Your task to perform on an android device: Search for the best selling coffee table on Crate & Barrel Image 0: 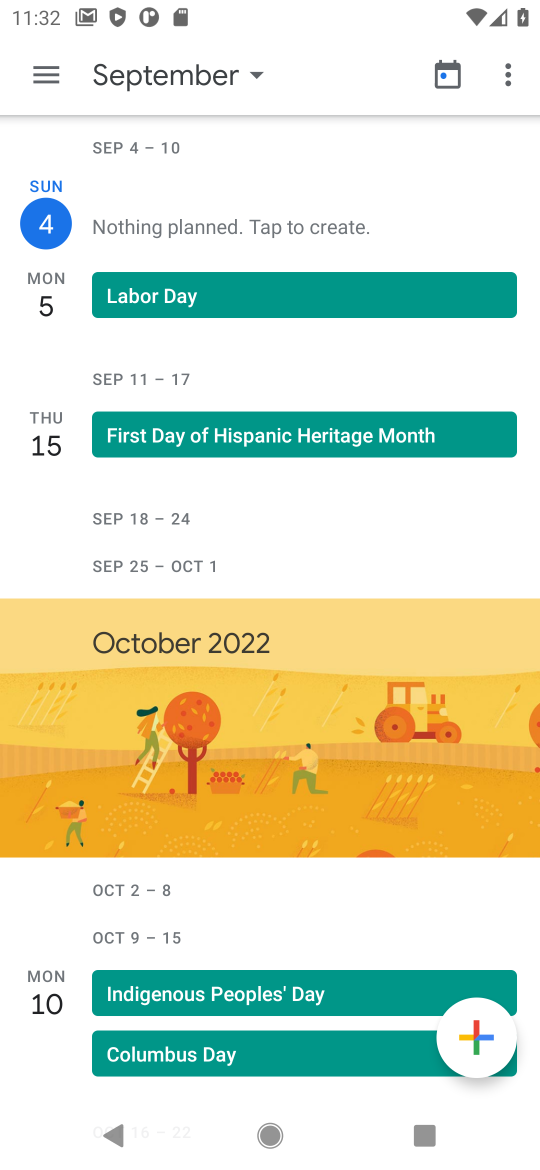
Step 0: press back button
Your task to perform on an android device: Search for the best selling coffee table on Crate & Barrel Image 1: 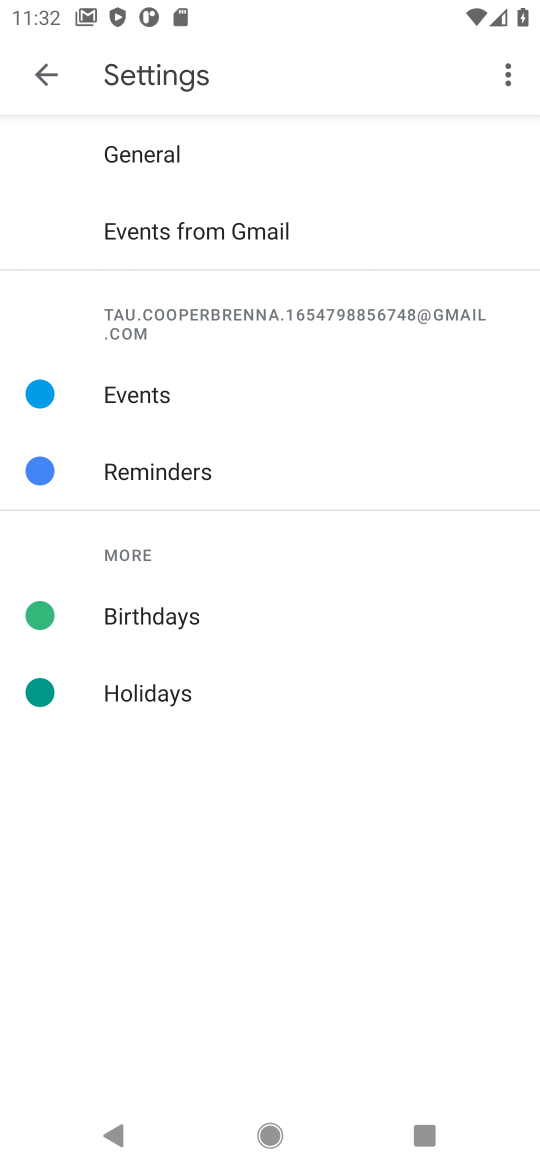
Step 1: press home button
Your task to perform on an android device: Search for the best selling coffee table on Crate & Barrel Image 2: 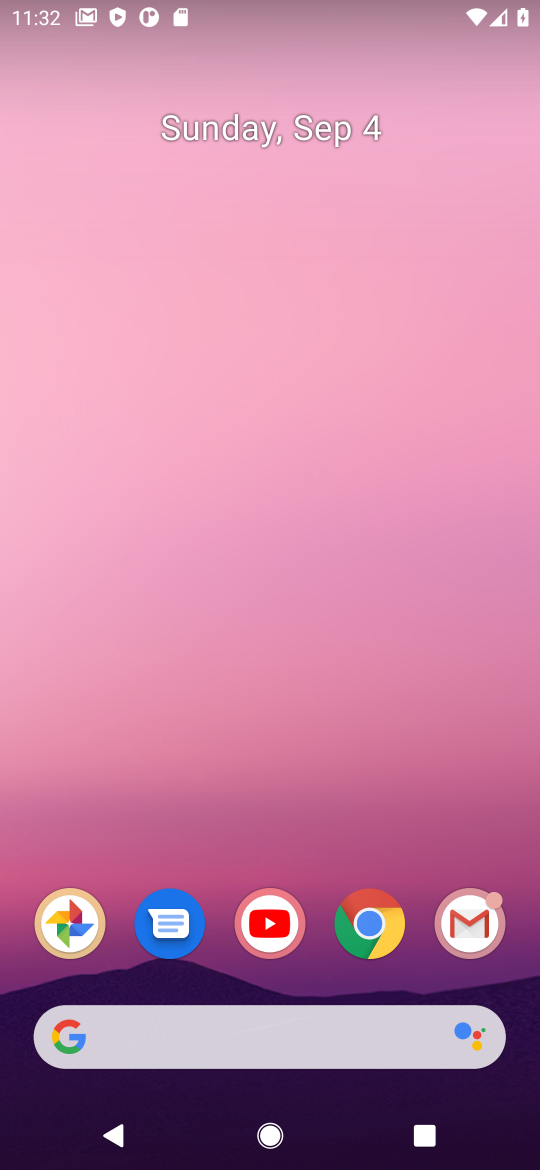
Step 2: click (387, 924)
Your task to perform on an android device: Search for the best selling coffee table on Crate & Barrel Image 3: 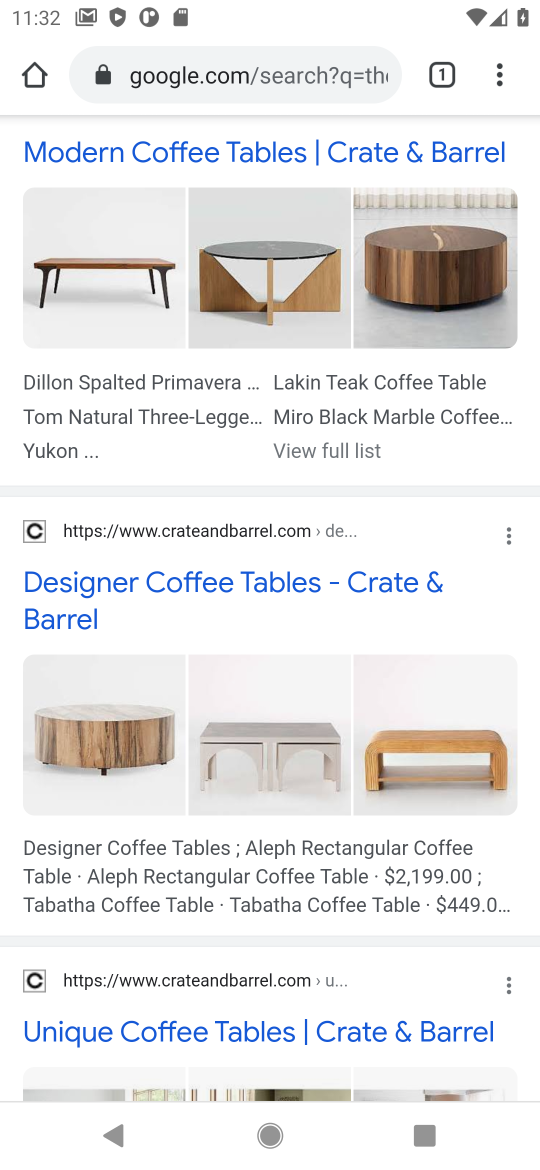
Step 3: click (223, 87)
Your task to perform on an android device: Search for the best selling coffee table on Crate & Barrel Image 4: 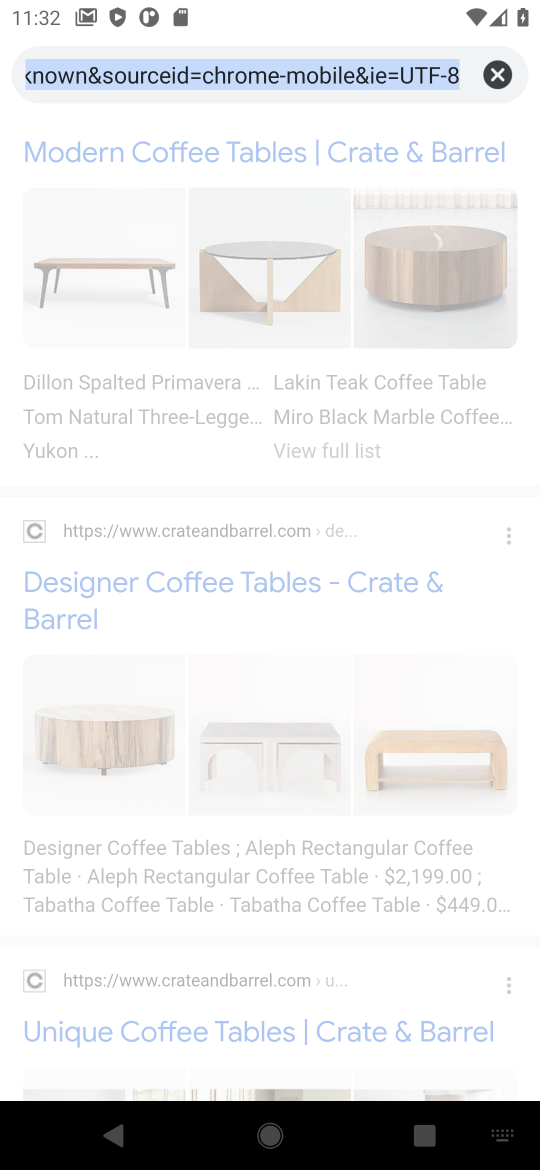
Step 4: click (491, 79)
Your task to perform on an android device: Search for the best selling coffee table on Crate & Barrel Image 5: 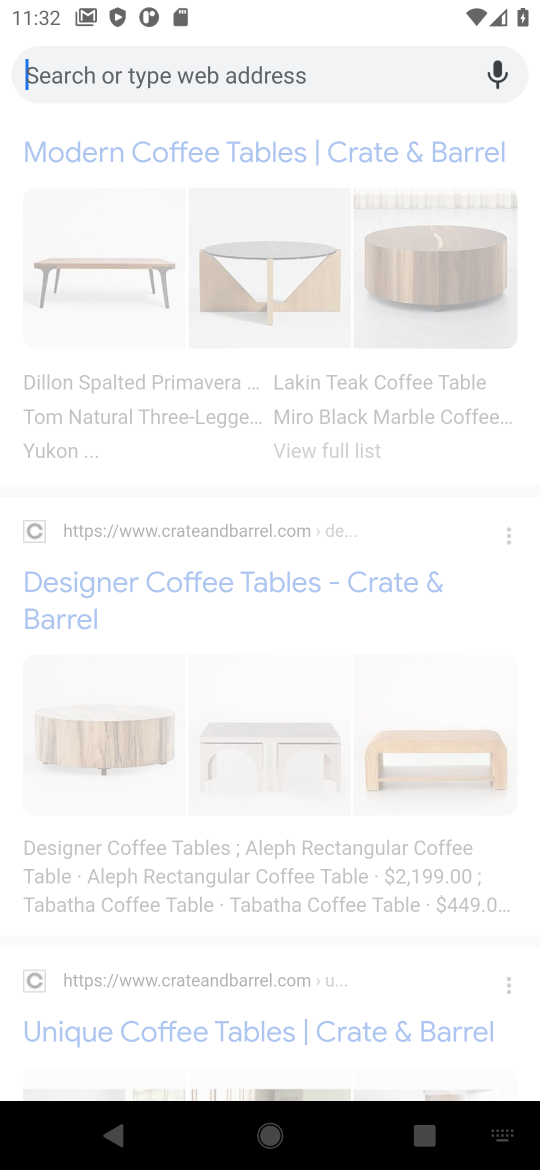
Step 5: type " best selling coffee table on Crate & Barrel"
Your task to perform on an android device: Search for the best selling coffee table on Crate & Barrel Image 6: 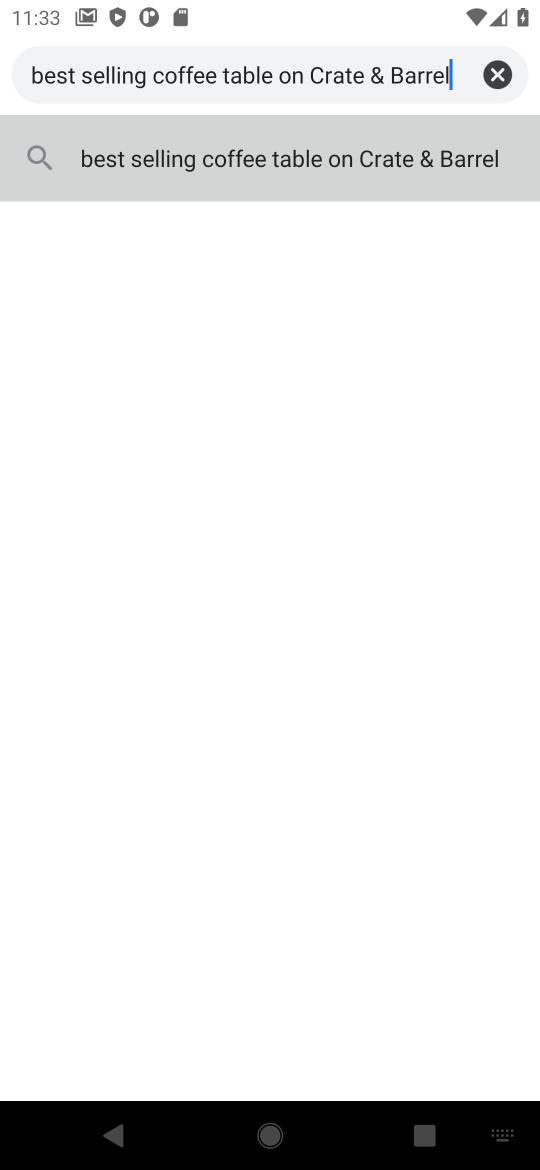
Step 6: click (349, 187)
Your task to perform on an android device: Search for the best selling coffee table on Crate & Barrel Image 7: 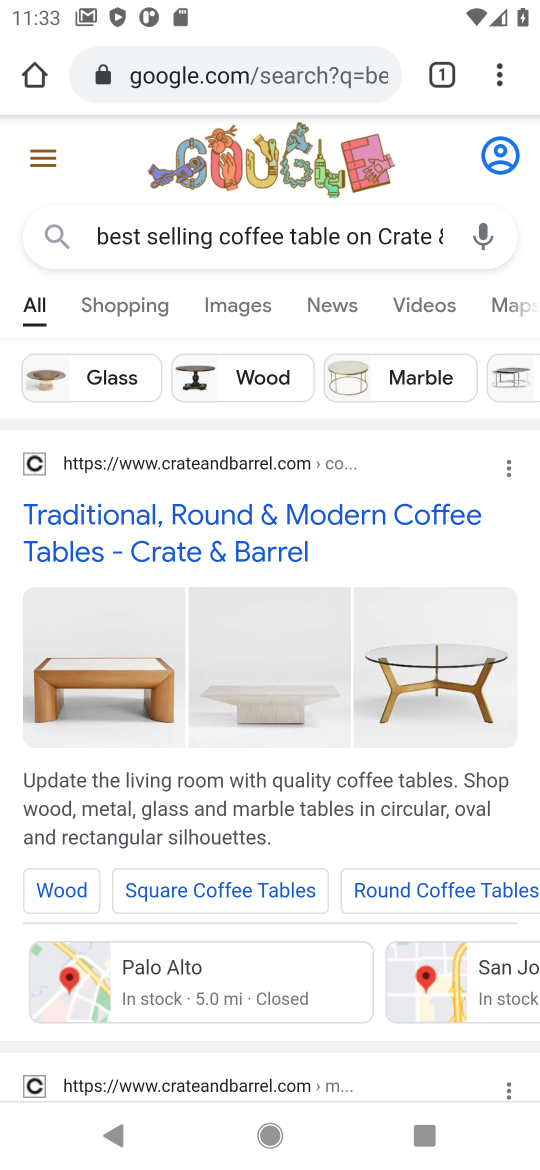
Step 7: drag from (360, 1047) to (317, 635)
Your task to perform on an android device: Search for the best selling coffee table on Crate & Barrel Image 8: 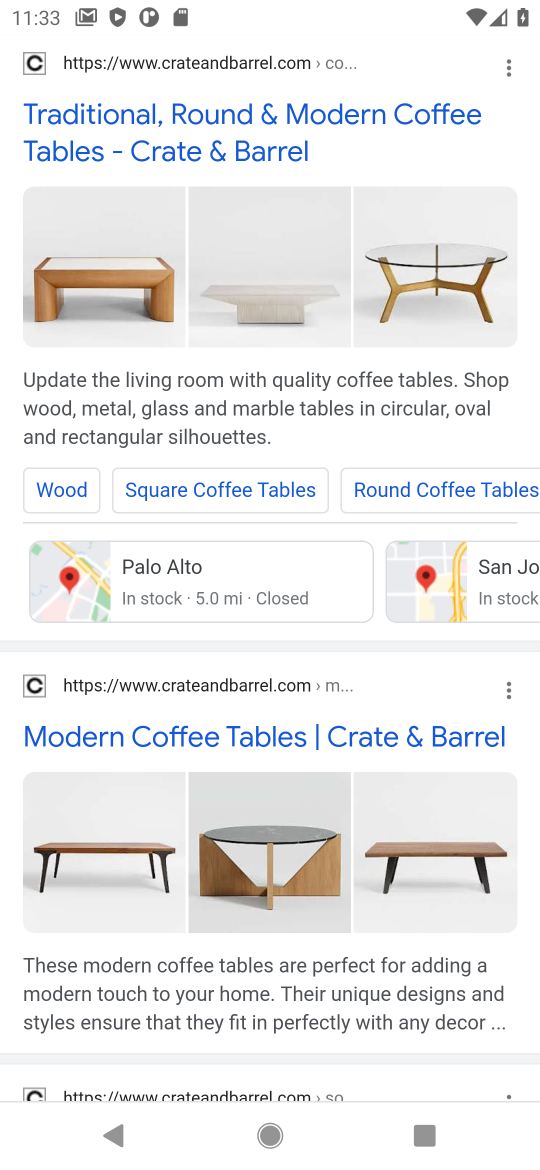
Step 8: click (71, 317)
Your task to perform on an android device: Search for the best selling coffee table on Crate & Barrel Image 9: 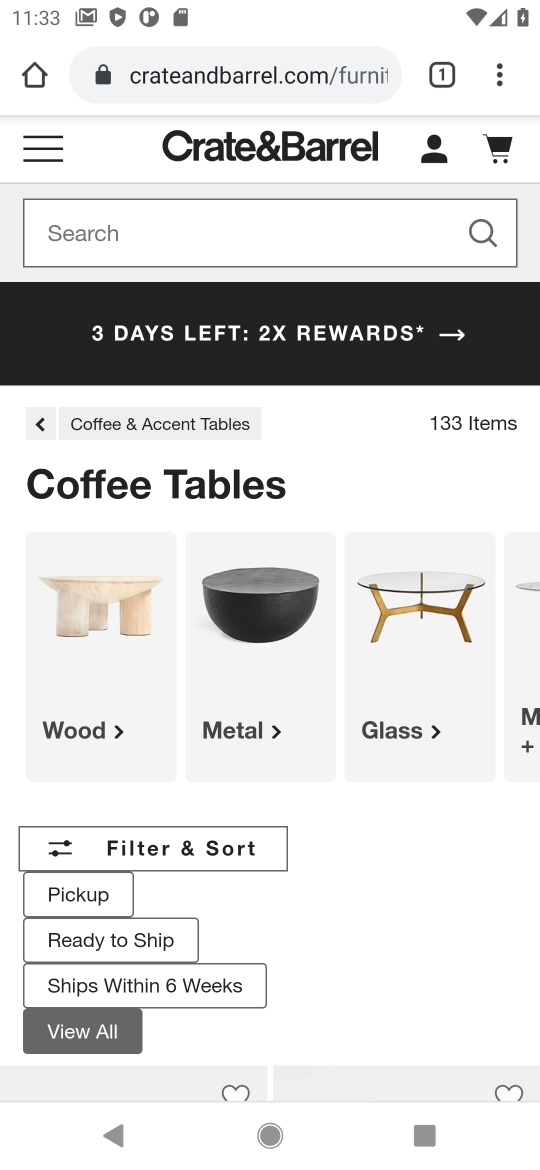
Step 9: task complete